Your task to perform on an android device: turn vacation reply on in the gmail app Image 0: 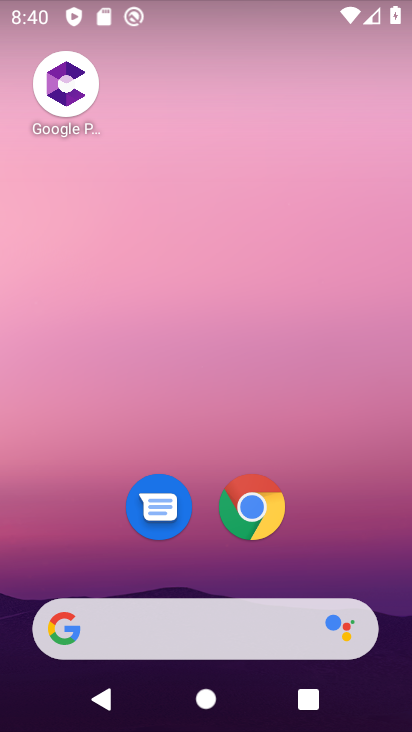
Step 0: drag from (230, 580) to (248, 164)
Your task to perform on an android device: turn vacation reply on in the gmail app Image 1: 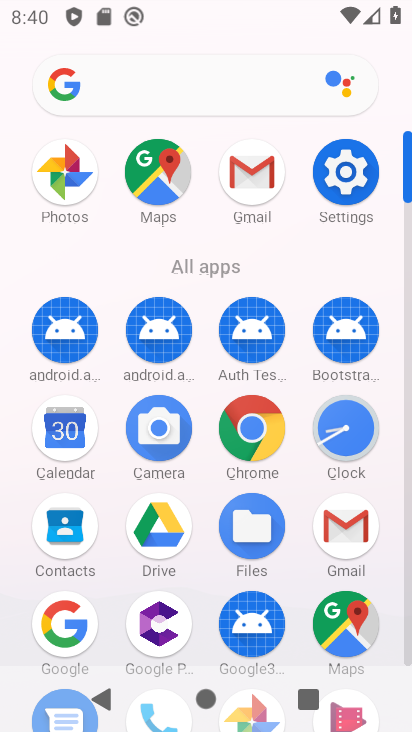
Step 1: click (234, 184)
Your task to perform on an android device: turn vacation reply on in the gmail app Image 2: 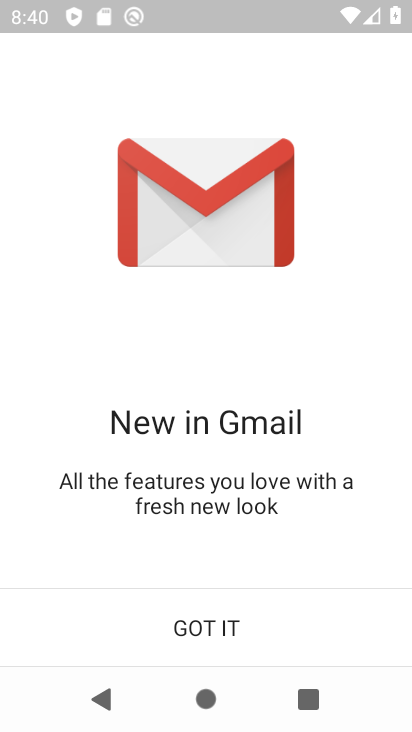
Step 2: click (195, 632)
Your task to perform on an android device: turn vacation reply on in the gmail app Image 3: 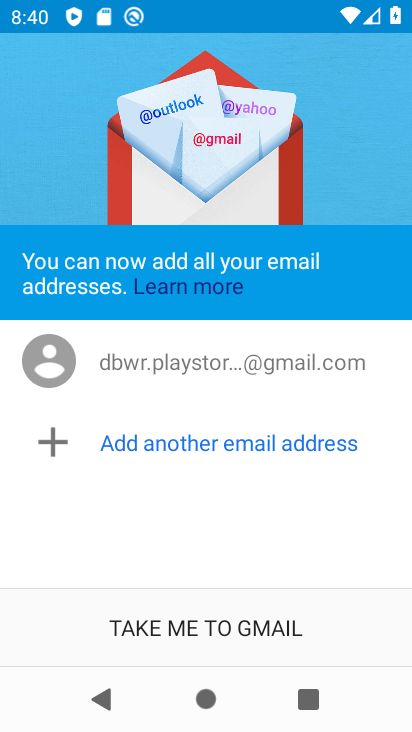
Step 3: click (195, 632)
Your task to perform on an android device: turn vacation reply on in the gmail app Image 4: 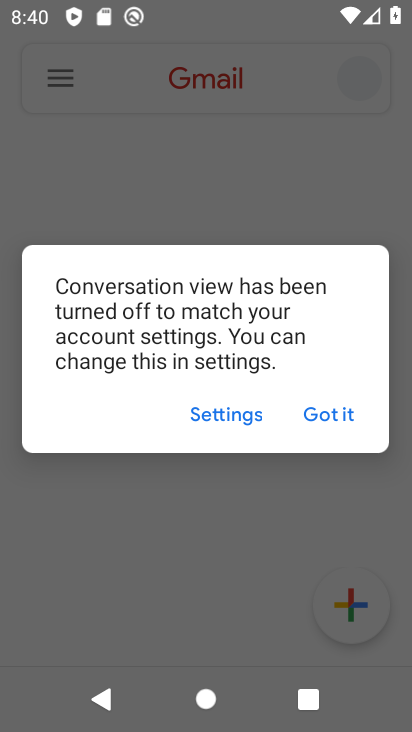
Step 4: click (340, 416)
Your task to perform on an android device: turn vacation reply on in the gmail app Image 5: 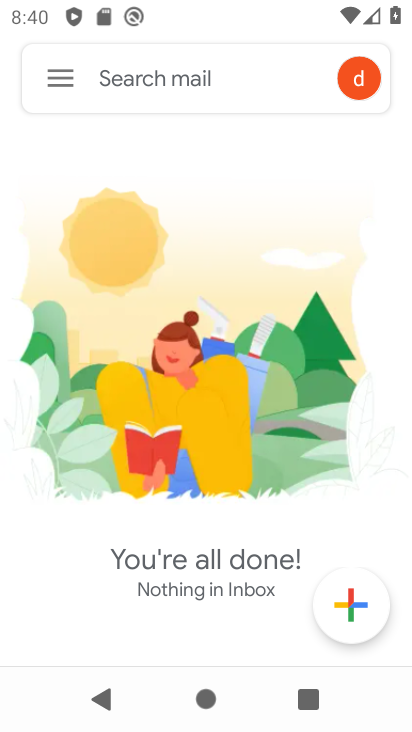
Step 5: click (61, 83)
Your task to perform on an android device: turn vacation reply on in the gmail app Image 6: 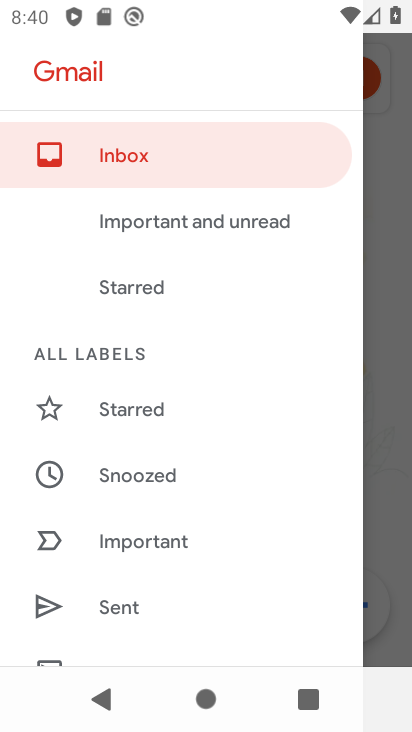
Step 6: drag from (131, 611) to (140, 328)
Your task to perform on an android device: turn vacation reply on in the gmail app Image 7: 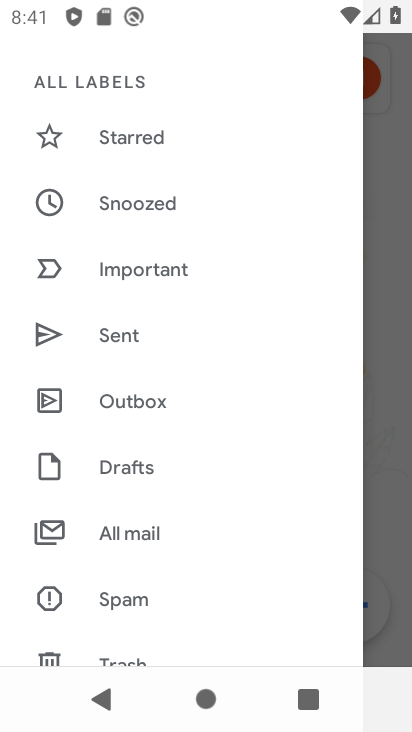
Step 7: drag from (187, 590) to (267, 1)
Your task to perform on an android device: turn vacation reply on in the gmail app Image 8: 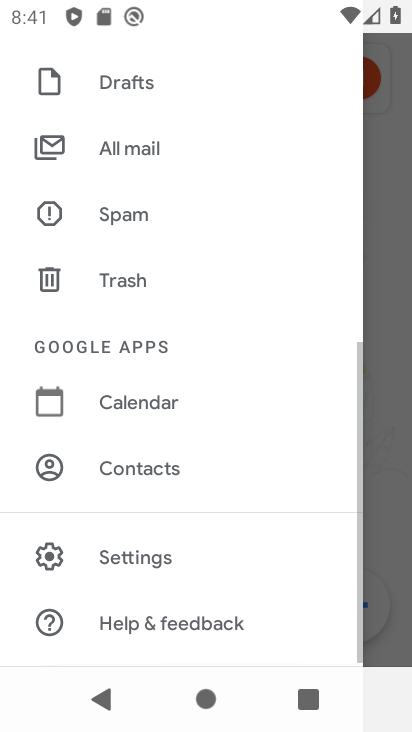
Step 8: click (146, 558)
Your task to perform on an android device: turn vacation reply on in the gmail app Image 9: 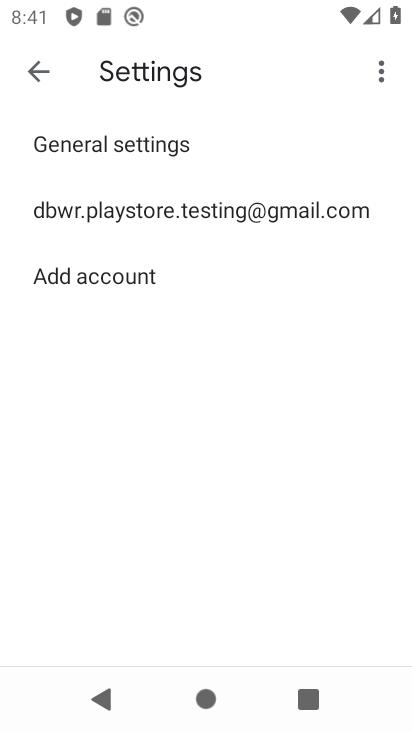
Step 9: click (210, 211)
Your task to perform on an android device: turn vacation reply on in the gmail app Image 10: 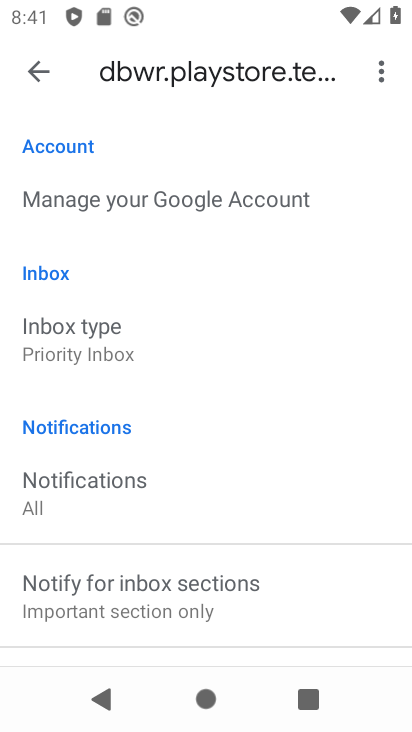
Step 10: drag from (251, 621) to (249, 97)
Your task to perform on an android device: turn vacation reply on in the gmail app Image 11: 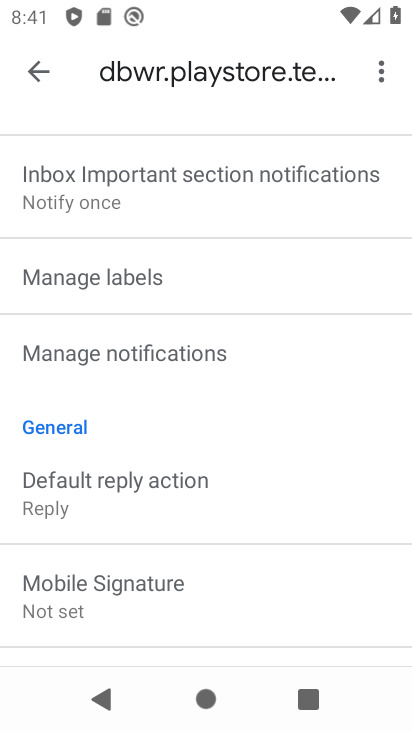
Step 11: drag from (191, 644) to (290, 93)
Your task to perform on an android device: turn vacation reply on in the gmail app Image 12: 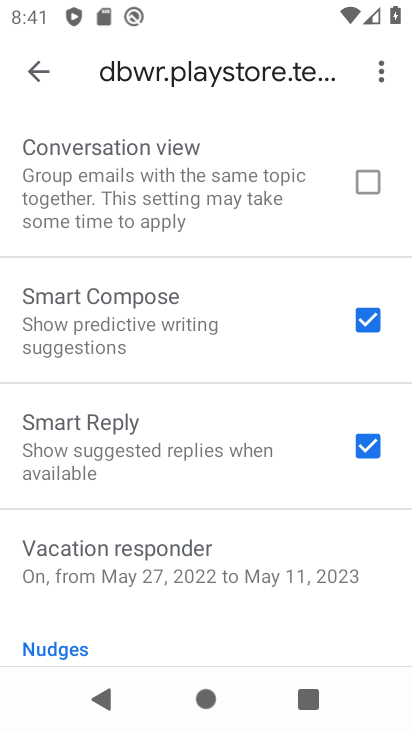
Step 12: click (219, 559)
Your task to perform on an android device: turn vacation reply on in the gmail app Image 13: 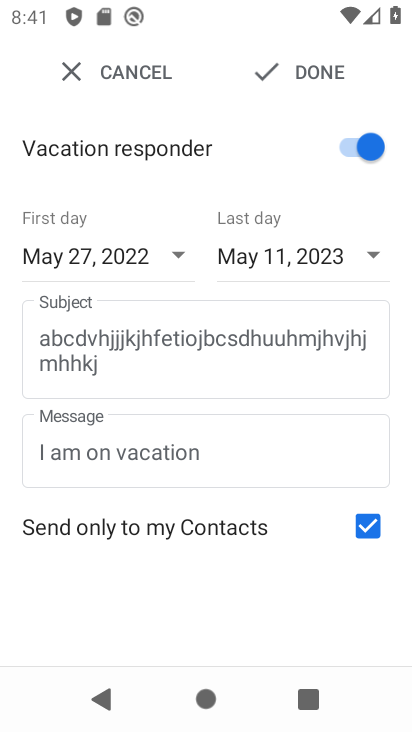
Step 13: task complete